Your task to perform on an android device: Go to Amazon Image 0: 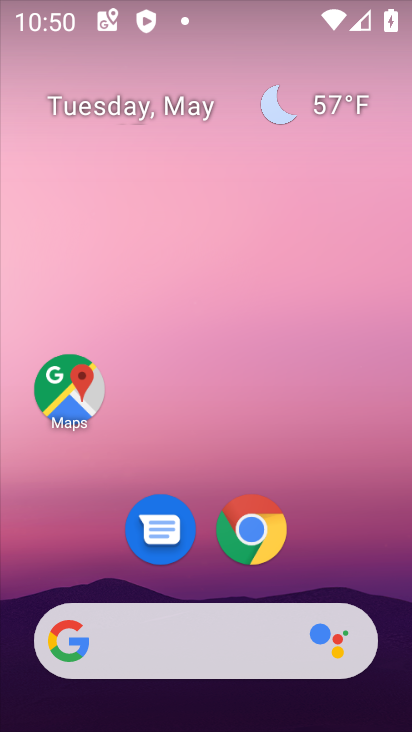
Step 0: click (255, 528)
Your task to perform on an android device: Go to Amazon Image 1: 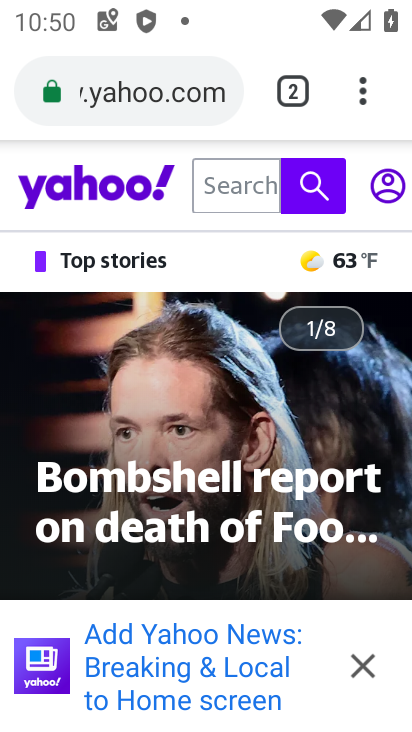
Step 1: click (316, 82)
Your task to perform on an android device: Go to Amazon Image 2: 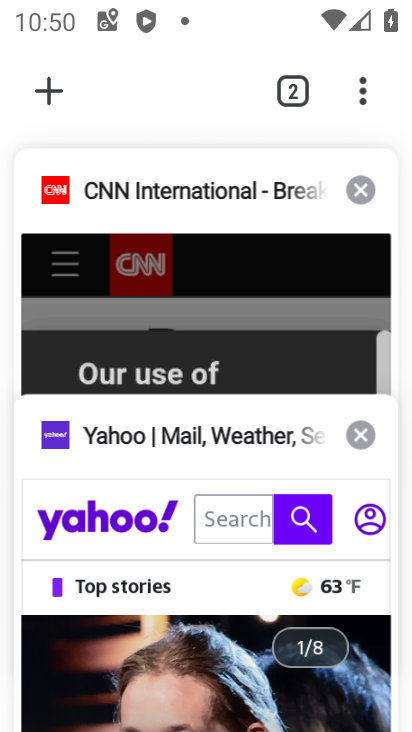
Step 2: click (52, 95)
Your task to perform on an android device: Go to Amazon Image 3: 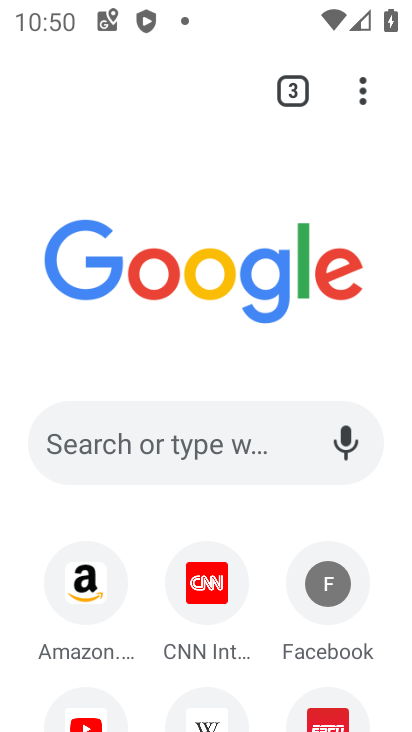
Step 3: click (54, 591)
Your task to perform on an android device: Go to Amazon Image 4: 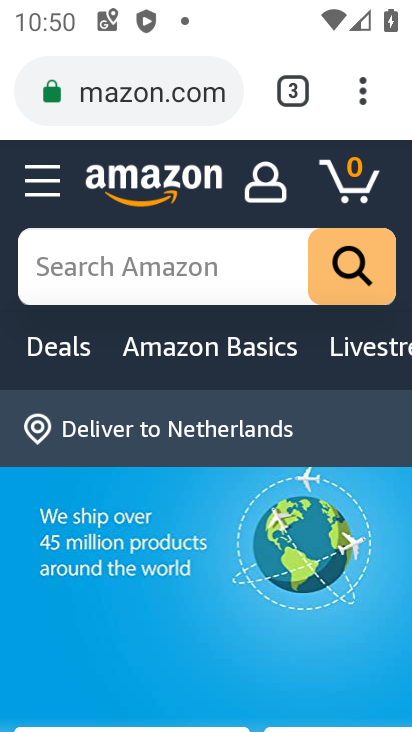
Step 4: task complete